Your task to perform on an android device: Open sound settings Image 0: 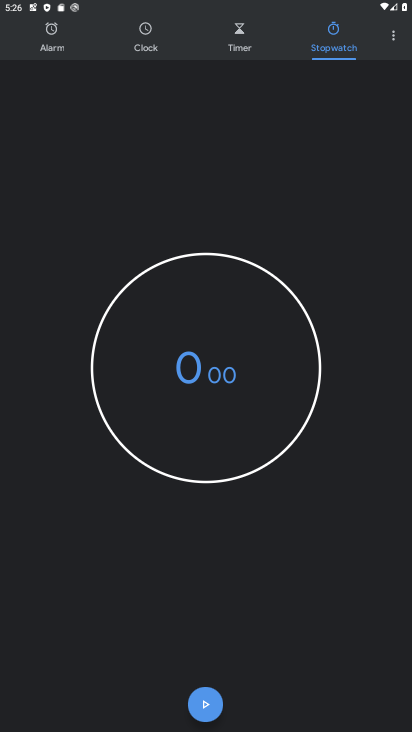
Step 0: press home button
Your task to perform on an android device: Open sound settings Image 1: 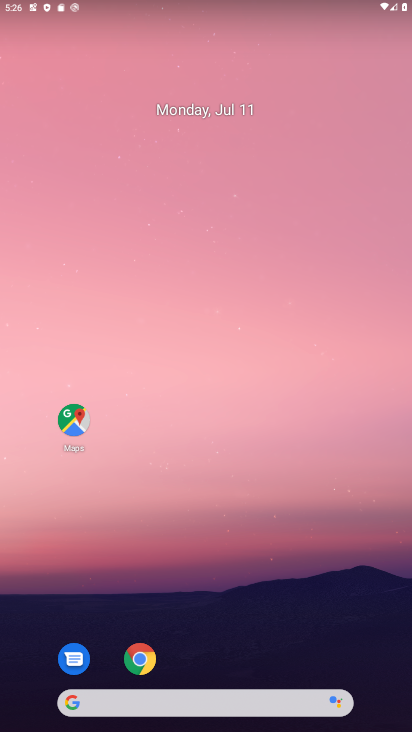
Step 1: drag from (345, 642) to (330, 126)
Your task to perform on an android device: Open sound settings Image 2: 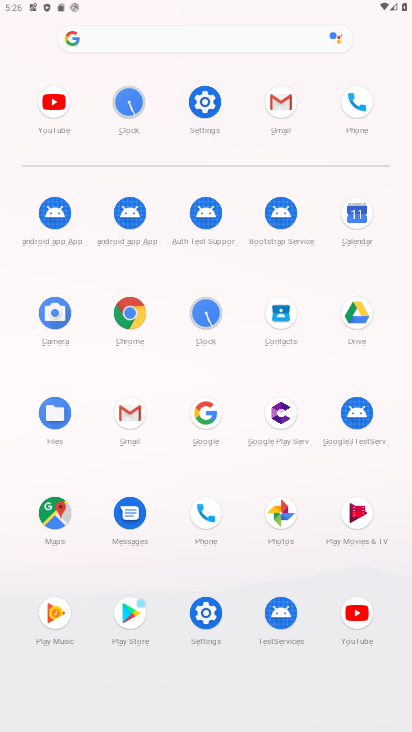
Step 2: click (205, 612)
Your task to perform on an android device: Open sound settings Image 3: 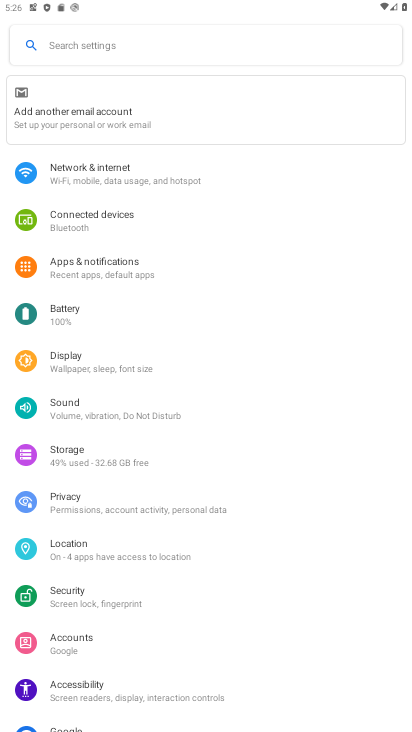
Step 3: click (61, 412)
Your task to perform on an android device: Open sound settings Image 4: 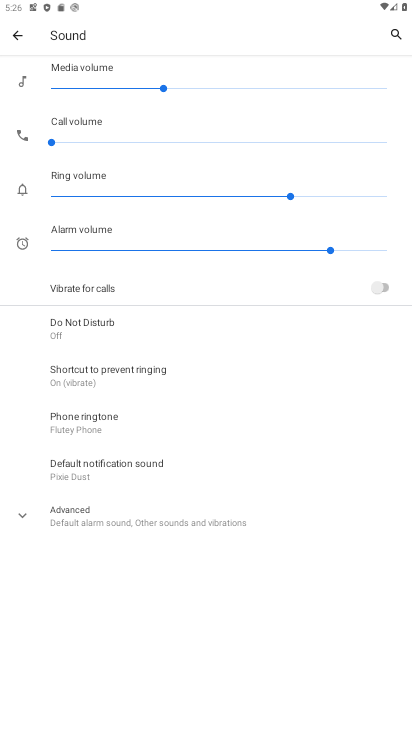
Step 4: click (31, 514)
Your task to perform on an android device: Open sound settings Image 5: 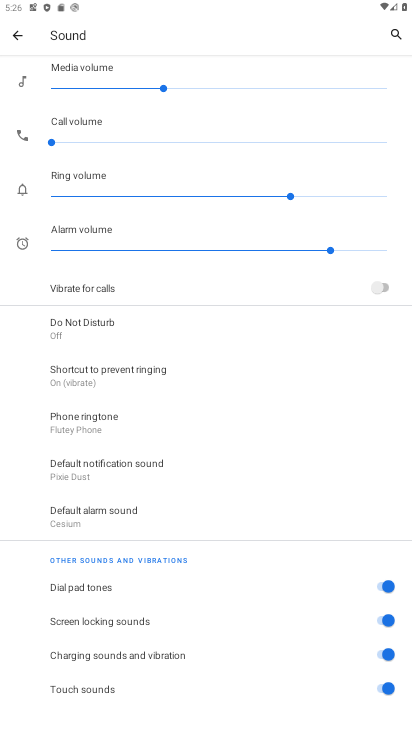
Step 5: task complete